Your task to perform on an android device: snooze an email in the gmail app Image 0: 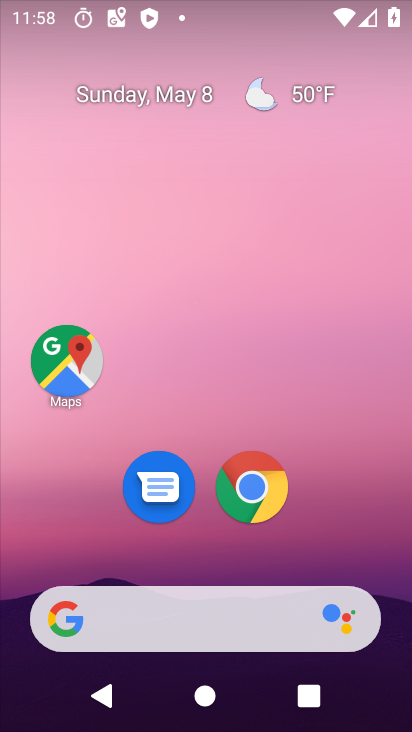
Step 0: drag from (348, 549) to (348, 167)
Your task to perform on an android device: snooze an email in the gmail app Image 1: 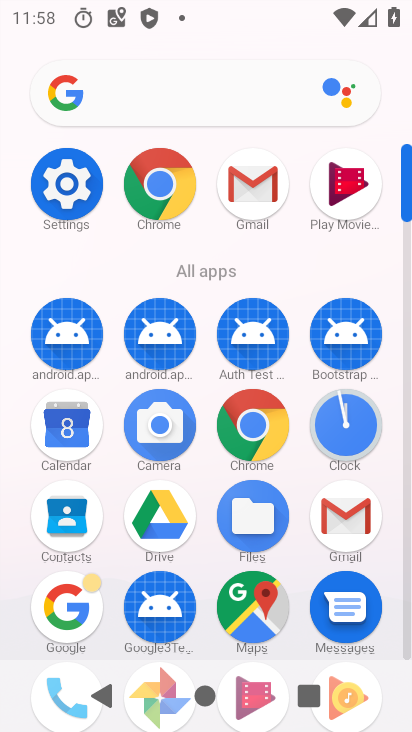
Step 1: click (264, 209)
Your task to perform on an android device: snooze an email in the gmail app Image 2: 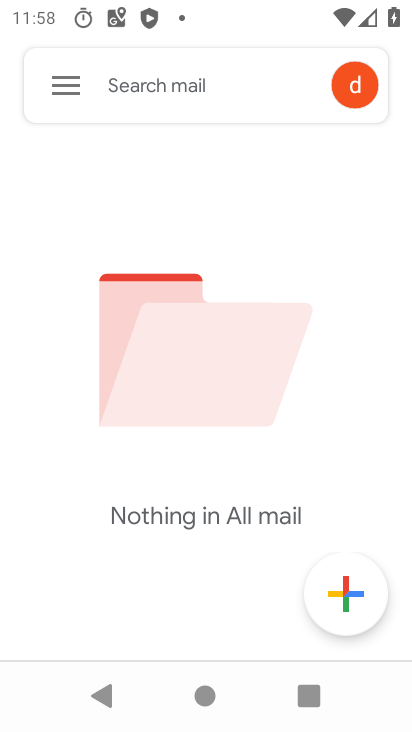
Step 2: click (66, 96)
Your task to perform on an android device: snooze an email in the gmail app Image 3: 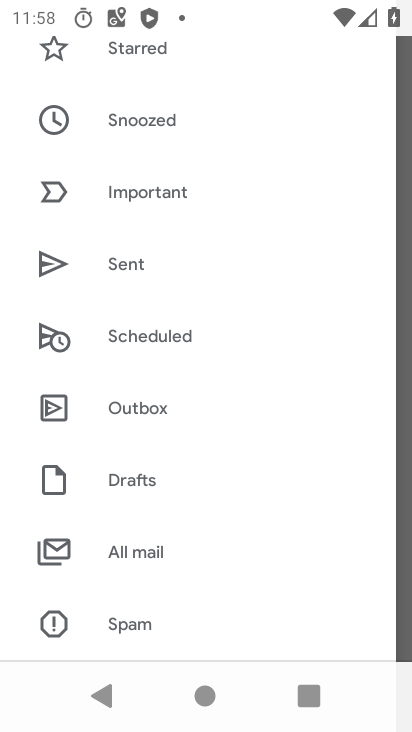
Step 3: drag from (254, 186) to (192, 697)
Your task to perform on an android device: snooze an email in the gmail app Image 4: 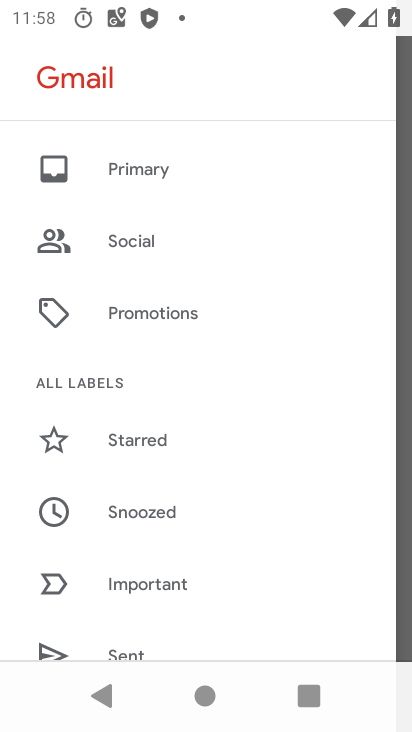
Step 4: click (179, 148)
Your task to perform on an android device: snooze an email in the gmail app Image 5: 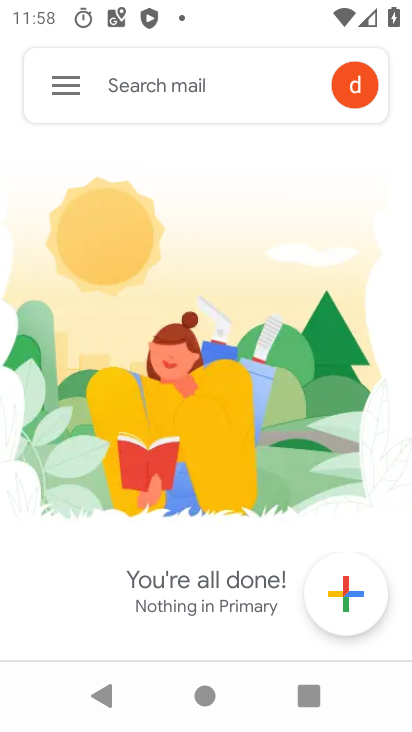
Step 5: click (64, 90)
Your task to perform on an android device: snooze an email in the gmail app Image 6: 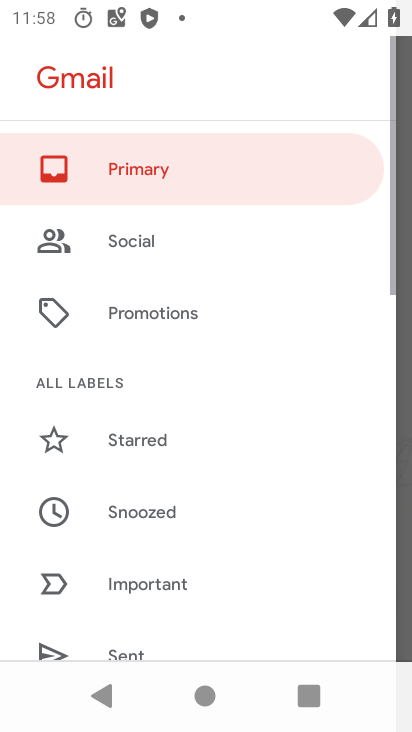
Step 6: click (117, 220)
Your task to perform on an android device: snooze an email in the gmail app Image 7: 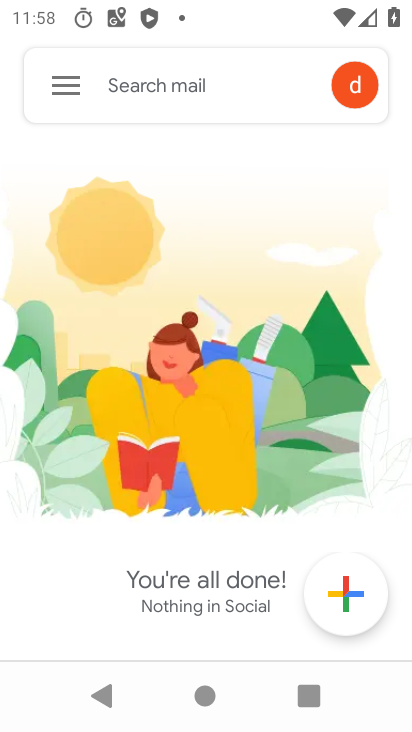
Step 7: task complete